Your task to perform on an android device: change keyboard looks Image 0: 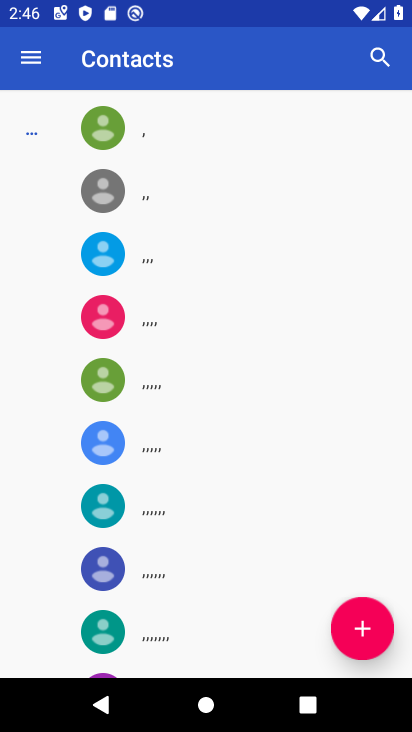
Step 0: drag from (269, 559) to (248, 314)
Your task to perform on an android device: change keyboard looks Image 1: 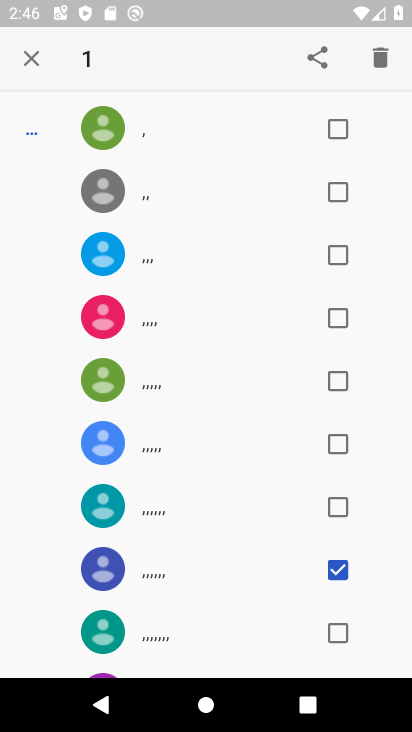
Step 1: press home button
Your task to perform on an android device: change keyboard looks Image 2: 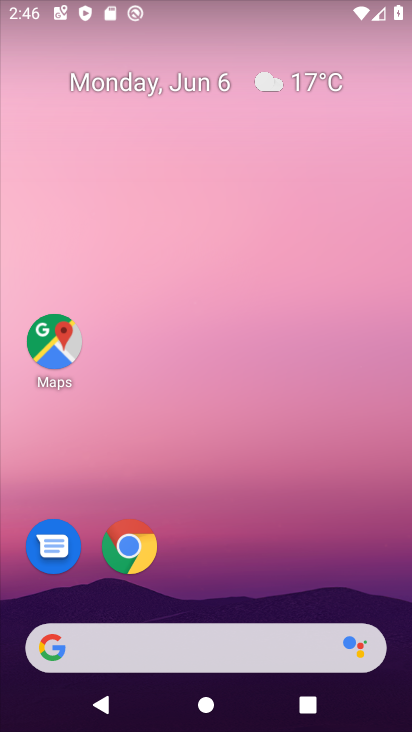
Step 2: drag from (267, 586) to (235, 120)
Your task to perform on an android device: change keyboard looks Image 3: 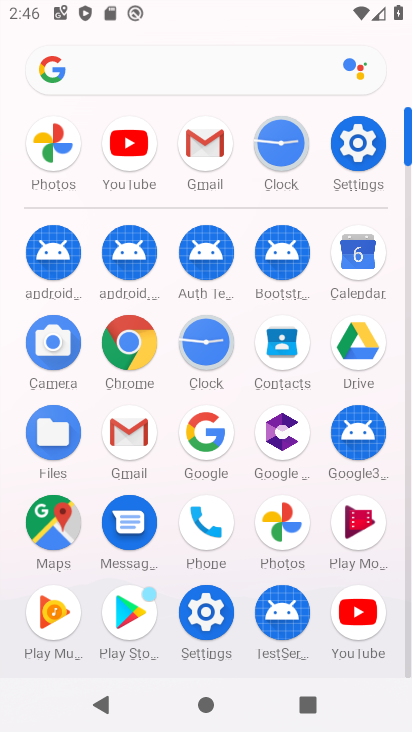
Step 3: click (359, 154)
Your task to perform on an android device: change keyboard looks Image 4: 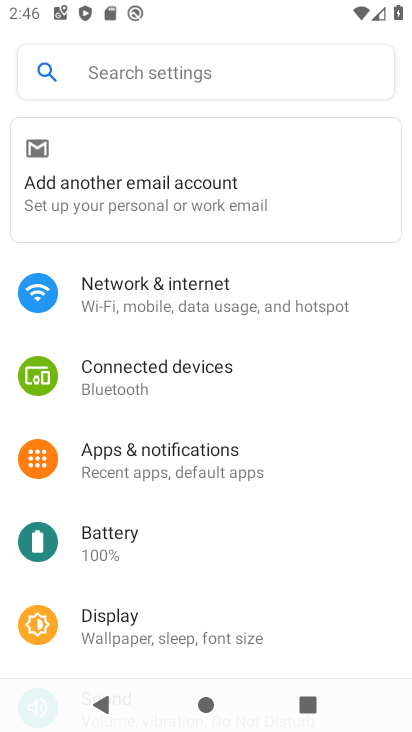
Step 4: drag from (217, 549) to (214, 224)
Your task to perform on an android device: change keyboard looks Image 5: 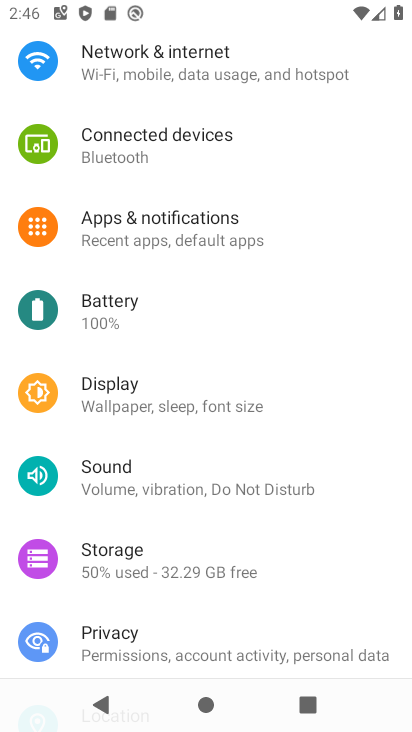
Step 5: drag from (227, 627) to (234, 291)
Your task to perform on an android device: change keyboard looks Image 6: 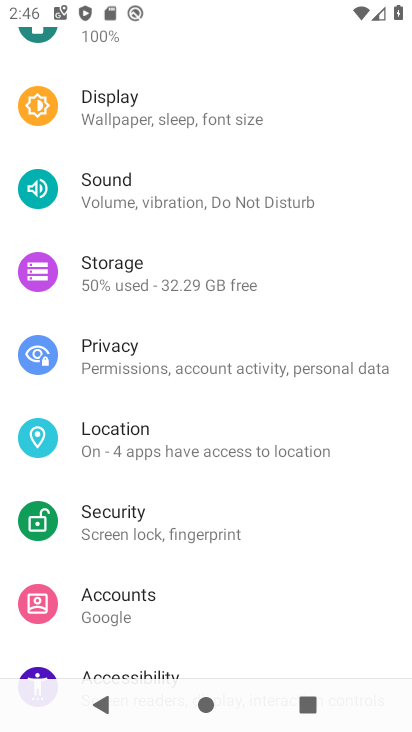
Step 6: drag from (265, 599) to (268, 178)
Your task to perform on an android device: change keyboard looks Image 7: 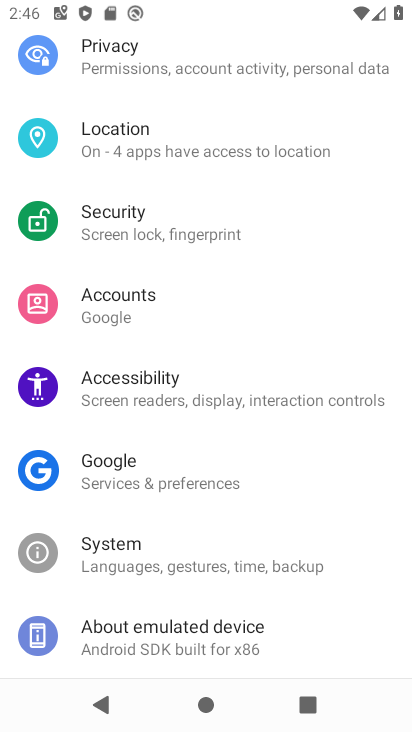
Step 7: click (235, 587)
Your task to perform on an android device: change keyboard looks Image 8: 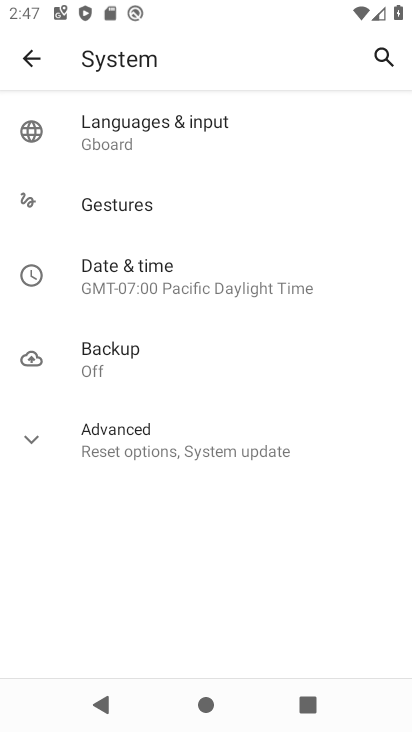
Step 8: task complete